Your task to perform on an android device: See recent photos Image 0: 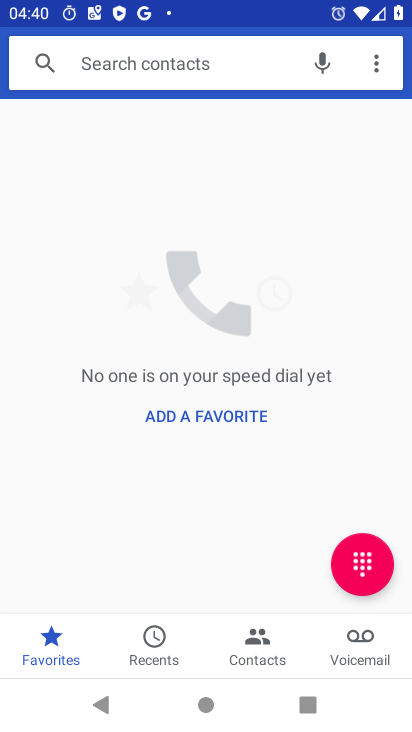
Step 0: press home button
Your task to perform on an android device: See recent photos Image 1: 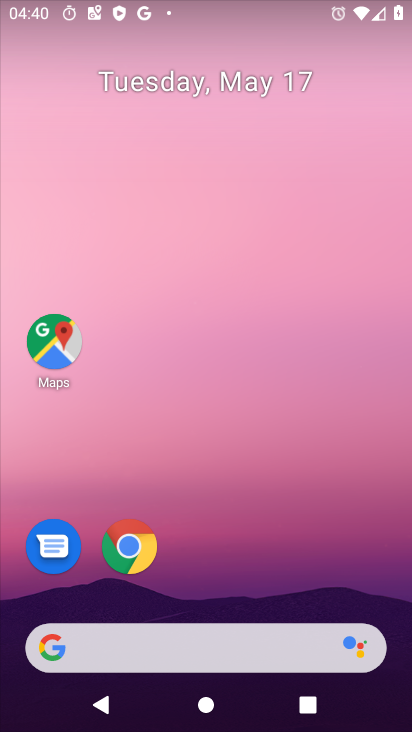
Step 1: drag from (397, 584) to (398, 350)
Your task to perform on an android device: See recent photos Image 2: 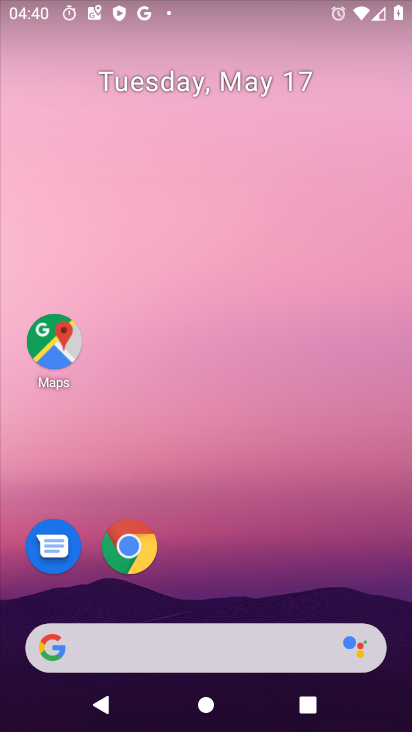
Step 2: drag from (396, 459) to (390, 292)
Your task to perform on an android device: See recent photos Image 3: 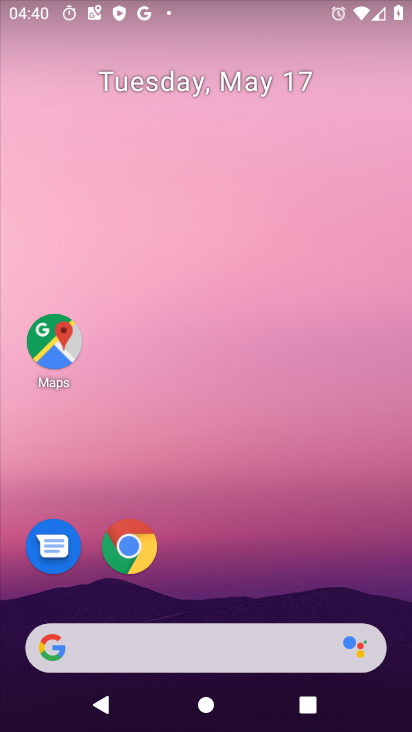
Step 3: drag from (397, 629) to (375, 297)
Your task to perform on an android device: See recent photos Image 4: 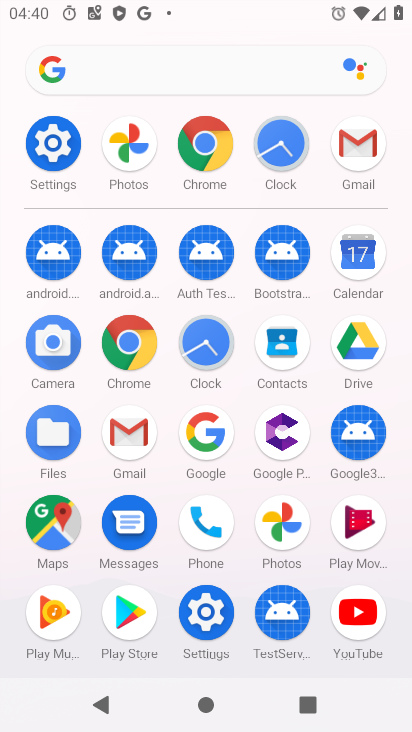
Step 4: click (270, 522)
Your task to perform on an android device: See recent photos Image 5: 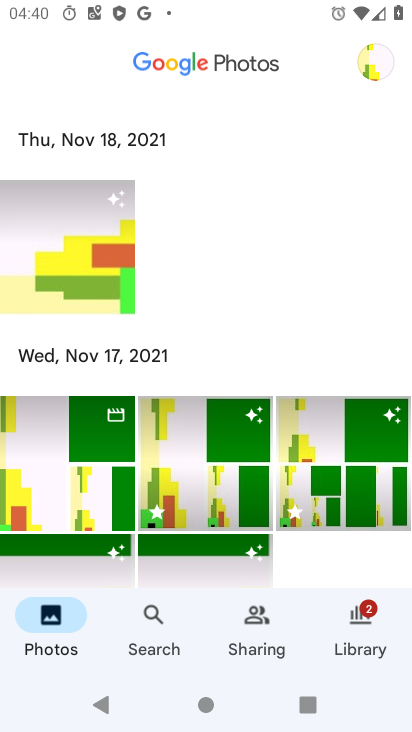
Step 5: click (99, 289)
Your task to perform on an android device: See recent photos Image 6: 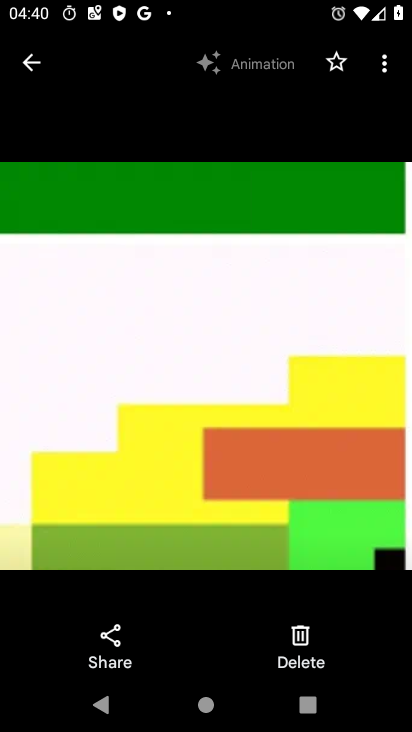
Step 6: click (39, 71)
Your task to perform on an android device: See recent photos Image 7: 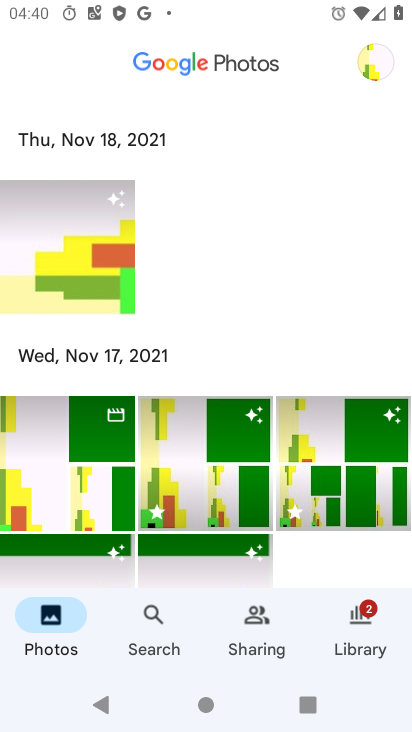
Step 7: task complete